Your task to perform on an android device: Open location settings Image 0: 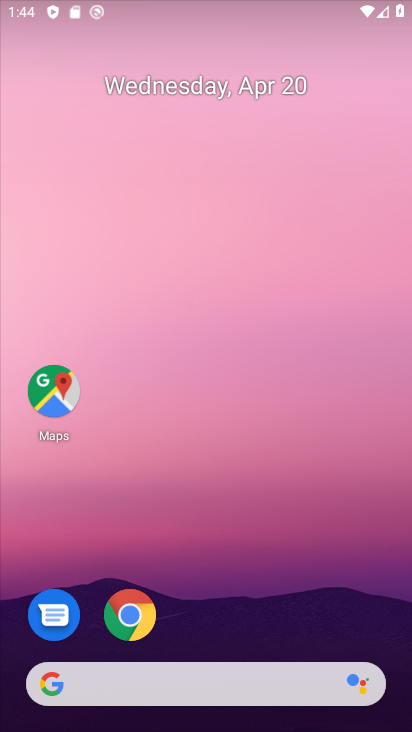
Step 0: drag from (243, 611) to (293, 44)
Your task to perform on an android device: Open location settings Image 1: 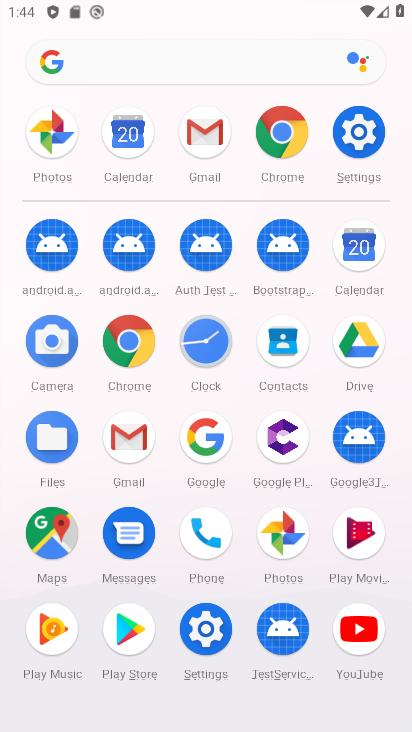
Step 1: click (359, 138)
Your task to perform on an android device: Open location settings Image 2: 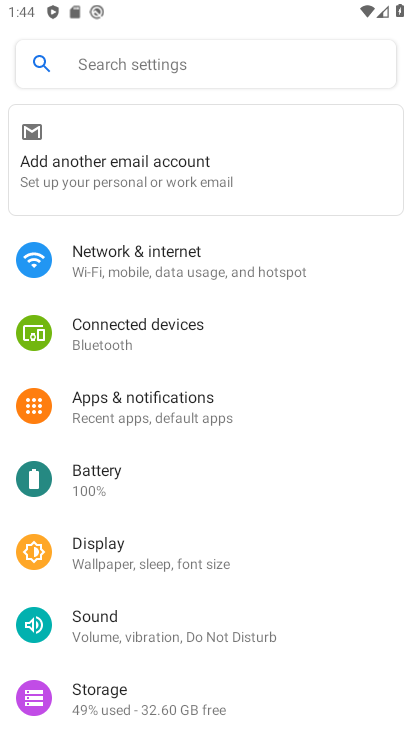
Step 2: drag from (145, 639) to (143, 574)
Your task to perform on an android device: Open location settings Image 3: 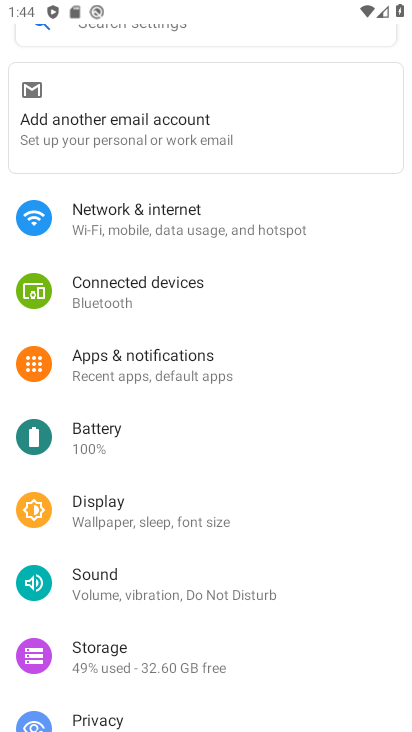
Step 3: drag from (133, 667) to (140, 594)
Your task to perform on an android device: Open location settings Image 4: 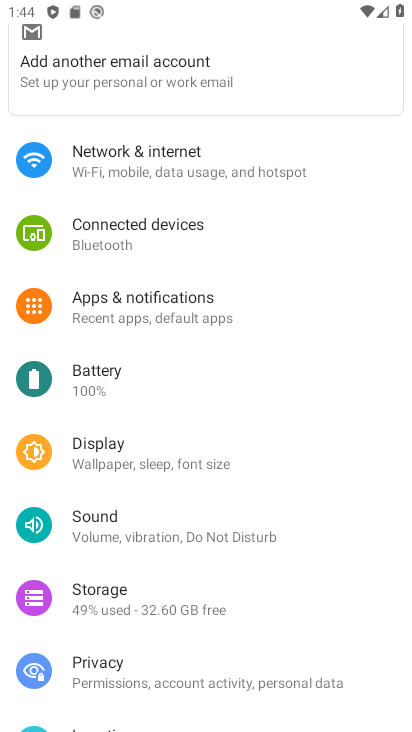
Step 4: drag from (105, 678) to (104, 605)
Your task to perform on an android device: Open location settings Image 5: 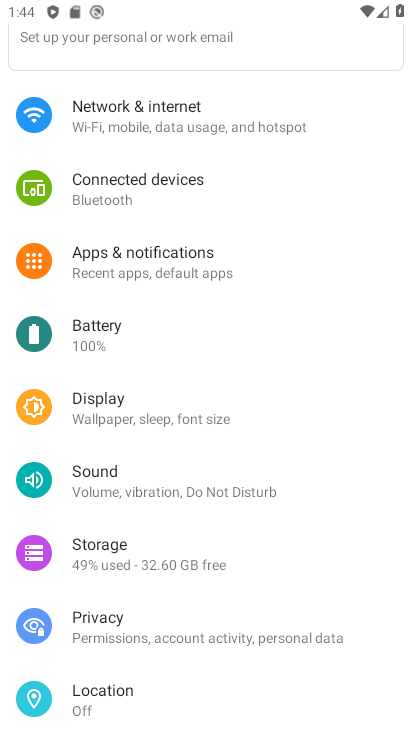
Step 5: click (101, 688)
Your task to perform on an android device: Open location settings Image 6: 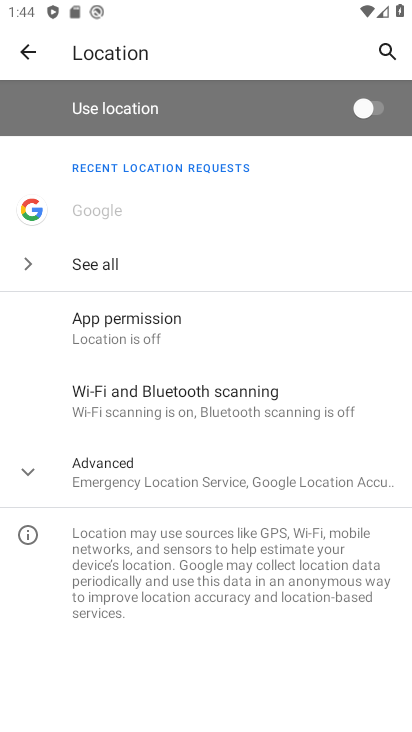
Step 6: task complete